Your task to perform on an android device: Search for Italian restaurants on Maps Image 0: 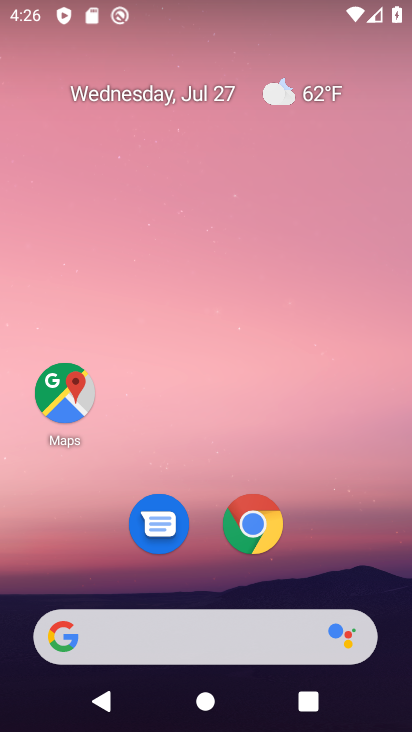
Step 0: click (66, 395)
Your task to perform on an android device: Search for Italian restaurants on Maps Image 1: 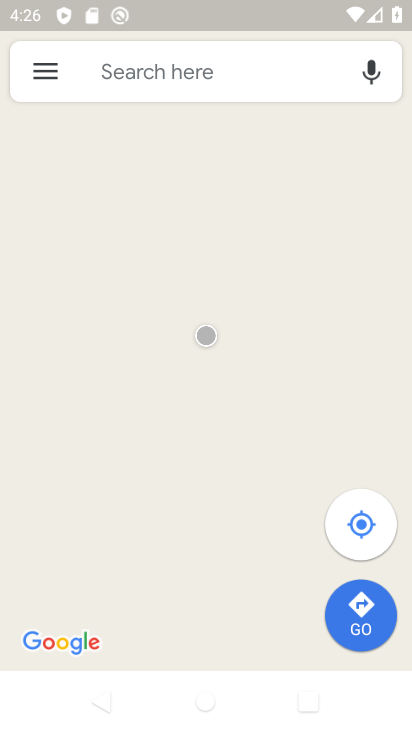
Step 1: click (222, 74)
Your task to perform on an android device: Search for Italian restaurants on Maps Image 2: 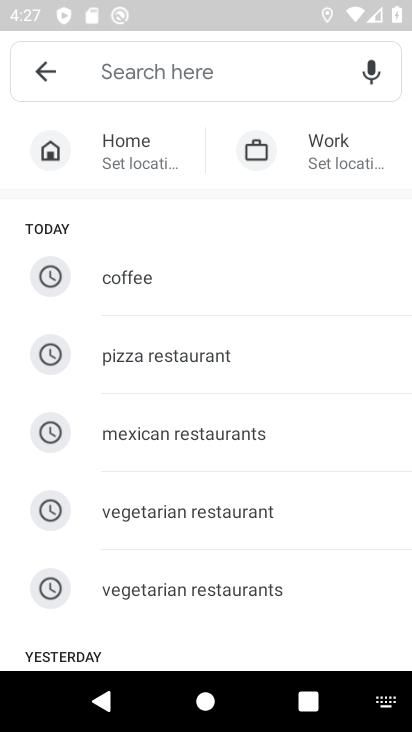
Step 2: drag from (215, 530) to (208, 303)
Your task to perform on an android device: Search for Italian restaurants on Maps Image 3: 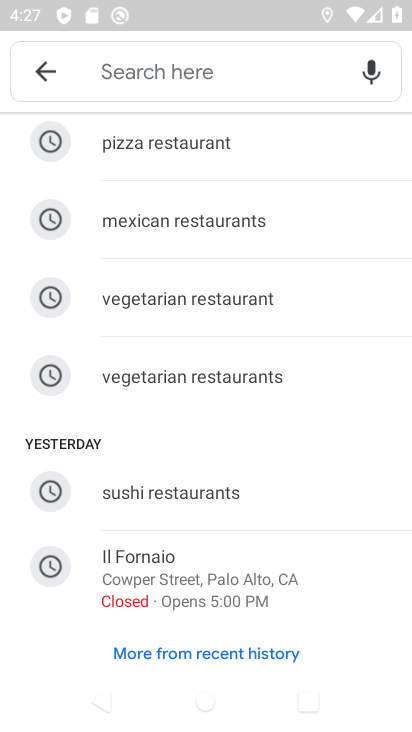
Step 3: drag from (215, 303) to (242, 619)
Your task to perform on an android device: Search for Italian restaurants on Maps Image 4: 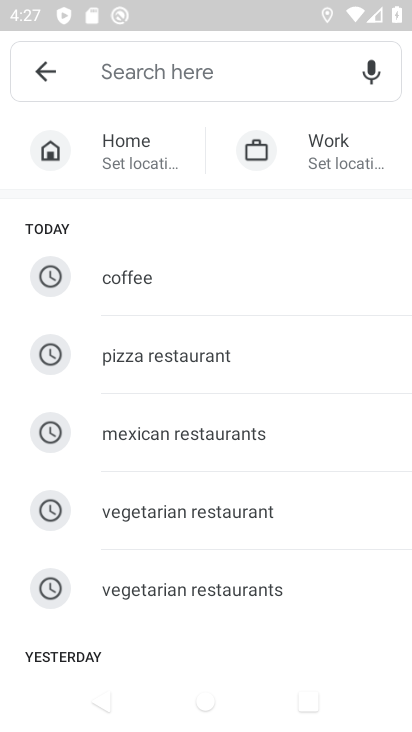
Step 4: click (223, 67)
Your task to perform on an android device: Search for Italian restaurants on Maps Image 5: 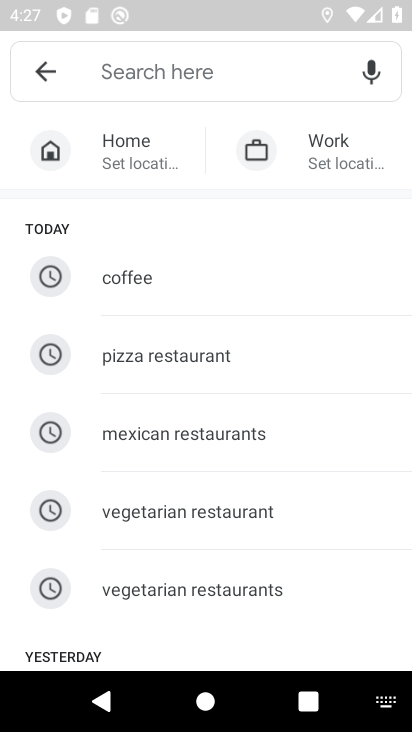
Step 5: type "Itallian restaurants"
Your task to perform on an android device: Search for Italian restaurants on Maps Image 6: 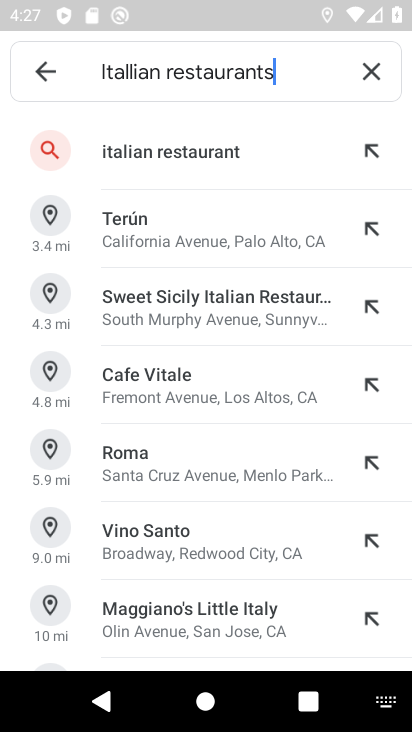
Step 6: click (226, 152)
Your task to perform on an android device: Search for Italian restaurants on Maps Image 7: 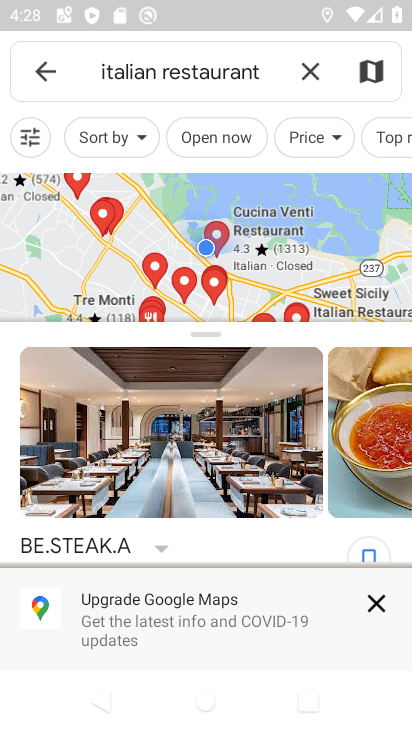
Step 7: task complete